Your task to perform on an android device: turn off translation in the chrome app Image 0: 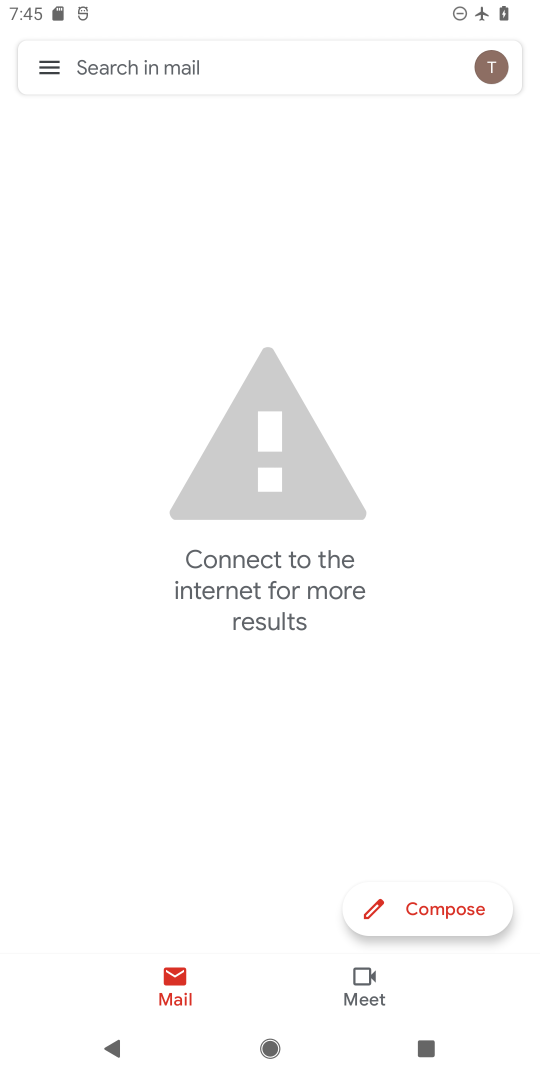
Step 0: press home button
Your task to perform on an android device: turn off translation in the chrome app Image 1: 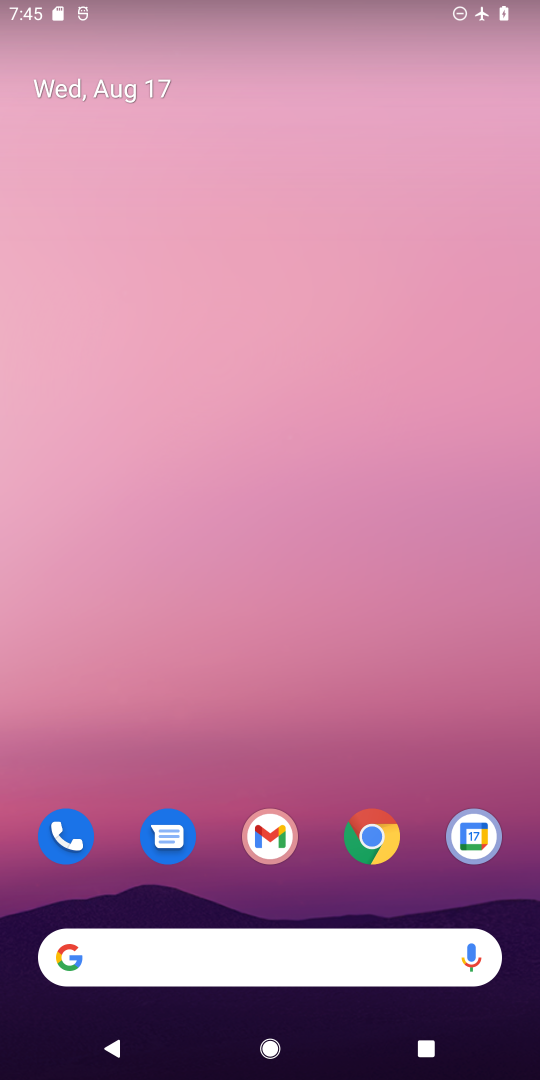
Step 1: drag from (220, 794) to (287, 35)
Your task to perform on an android device: turn off translation in the chrome app Image 2: 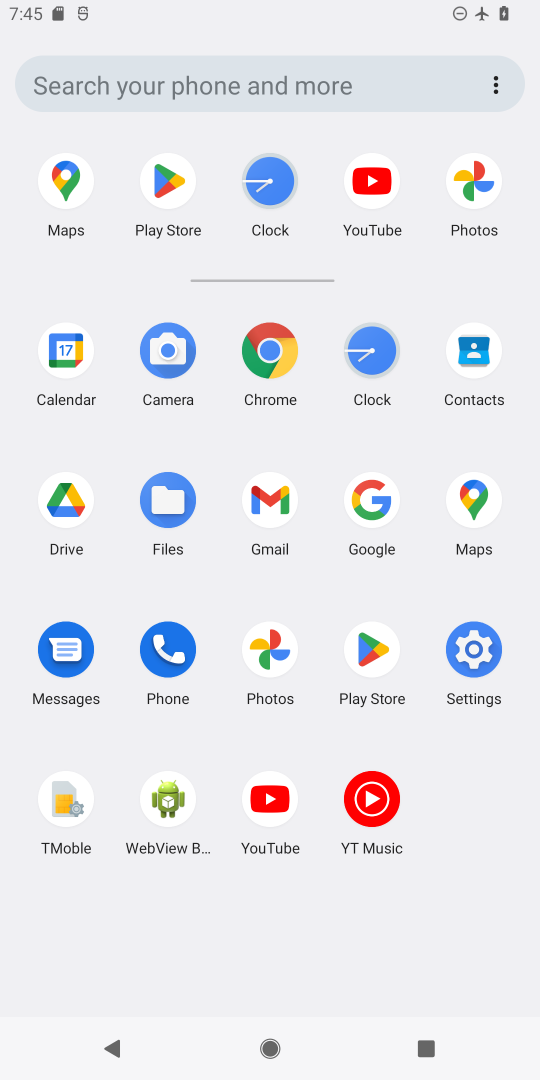
Step 2: click (279, 347)
Your task to perform on an android device: turn off translation in the chrome app Image 3: 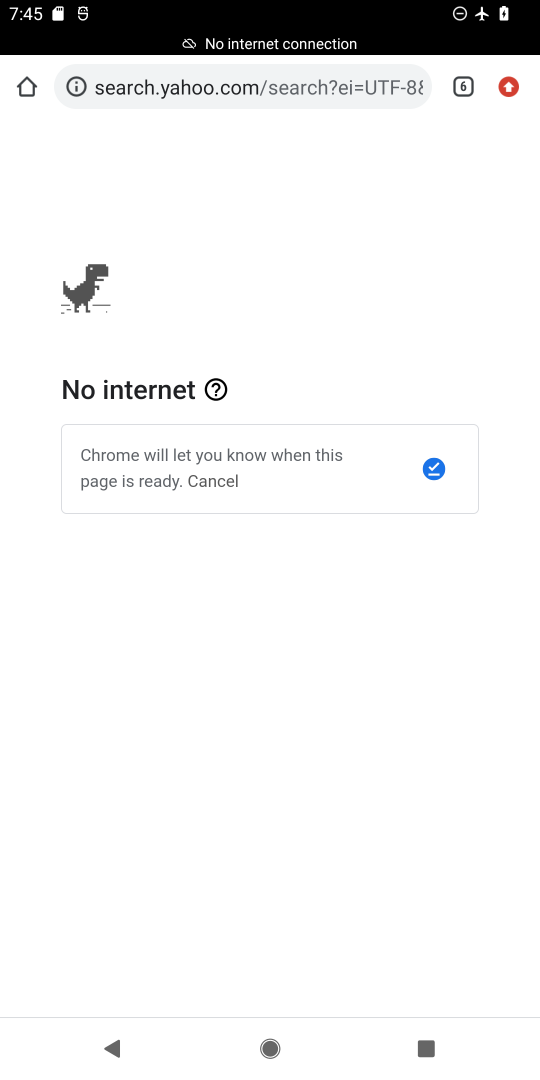
Step 3: click (528, 79)
Your task to perform on an android device: turn off translation in the chrome app Image 4: 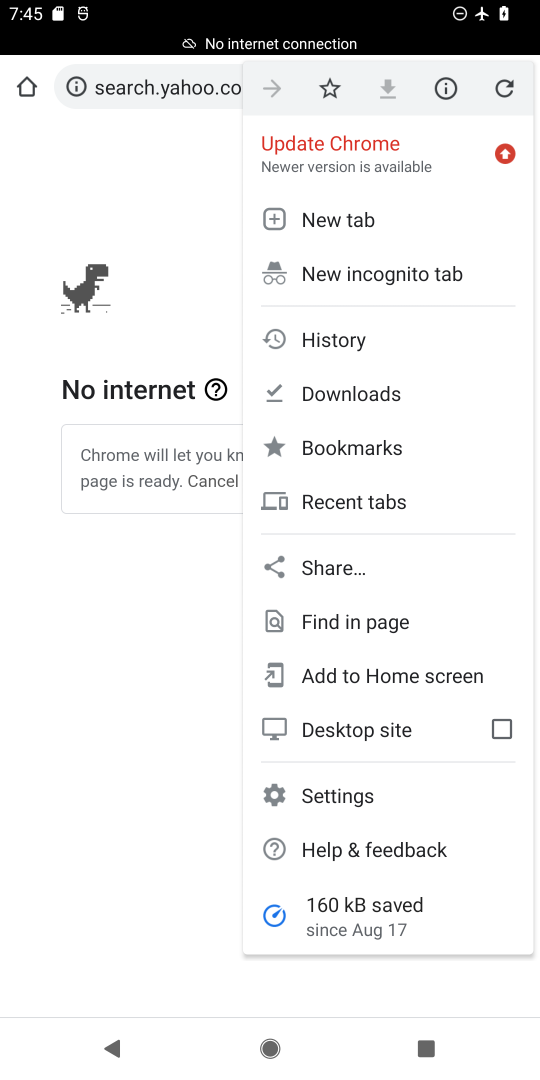
Step 4: click (328, 783)
Your task to perform on an android device: turn off translation in the chrome app Image 5: 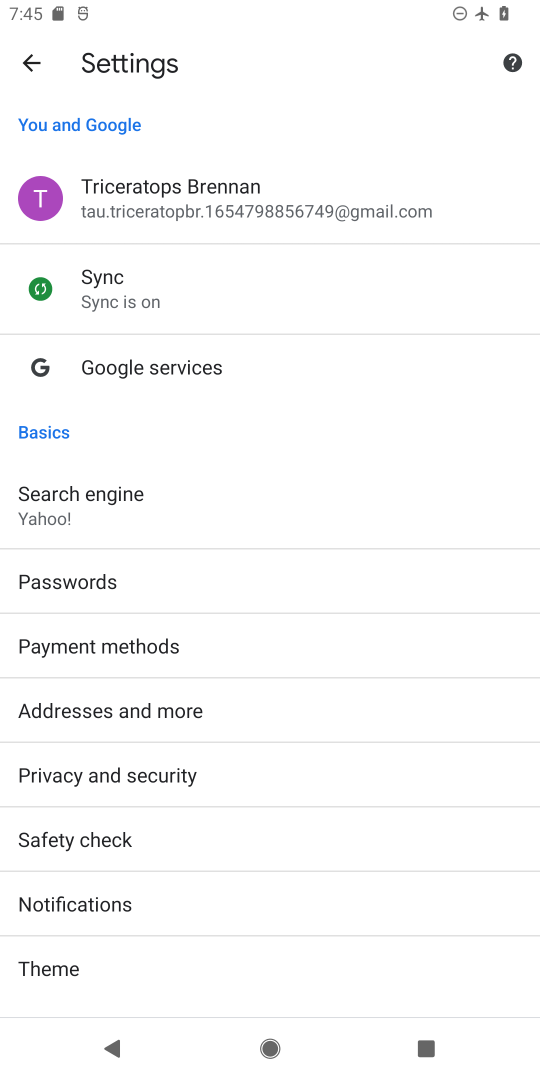
Step 5: drag from (132, 852) to (280, 373)
Your task to perform on an android device: turn off translation in the chrome app Image 6: 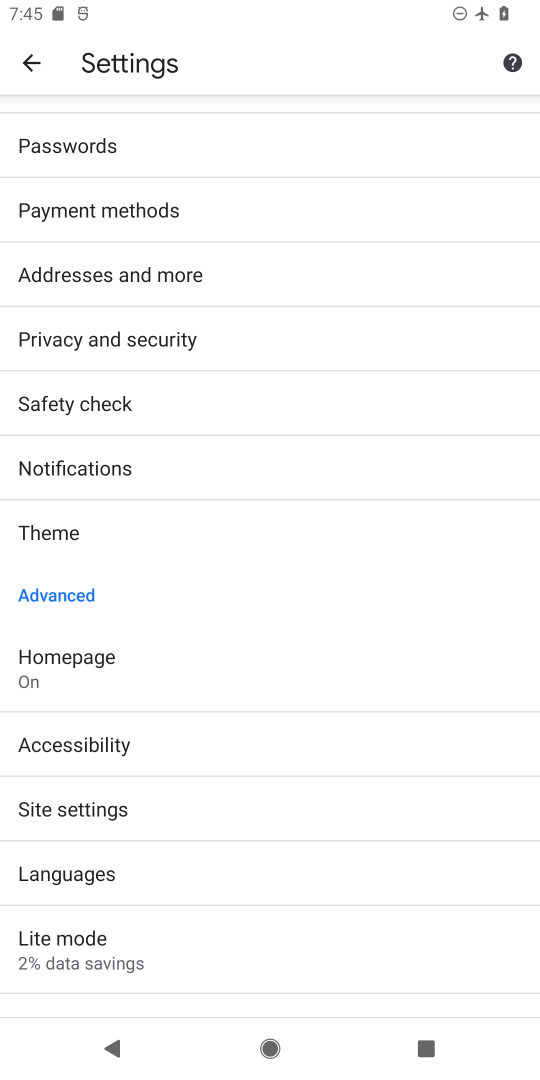
Step 6: click (129, 866)
Your task to perform on an android device: turn off translation in the chrome app Image 7: 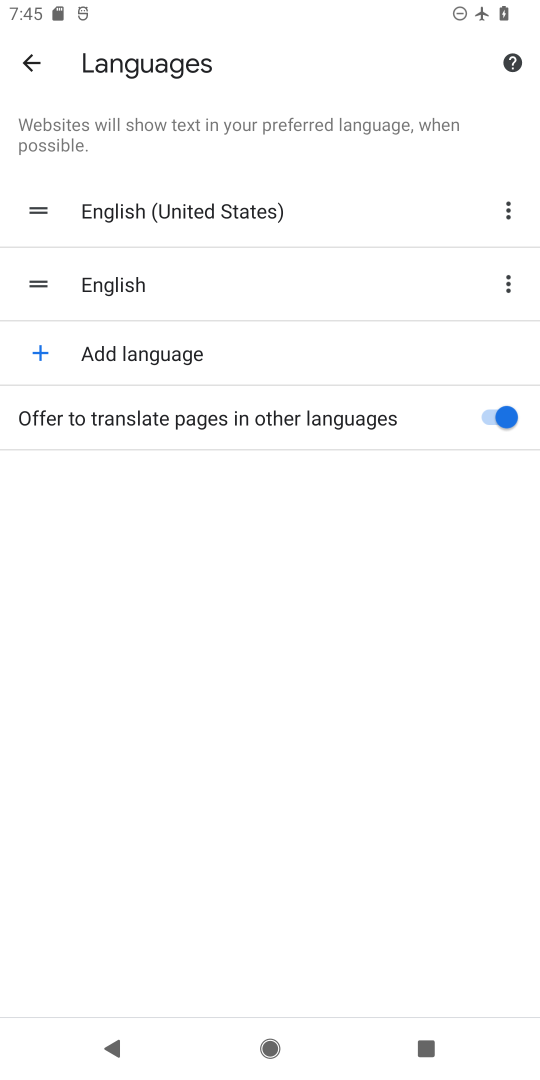
Step 7: click (499, 401)
Your task to perform on an android device: turn off translation in the chrome app Image 8: 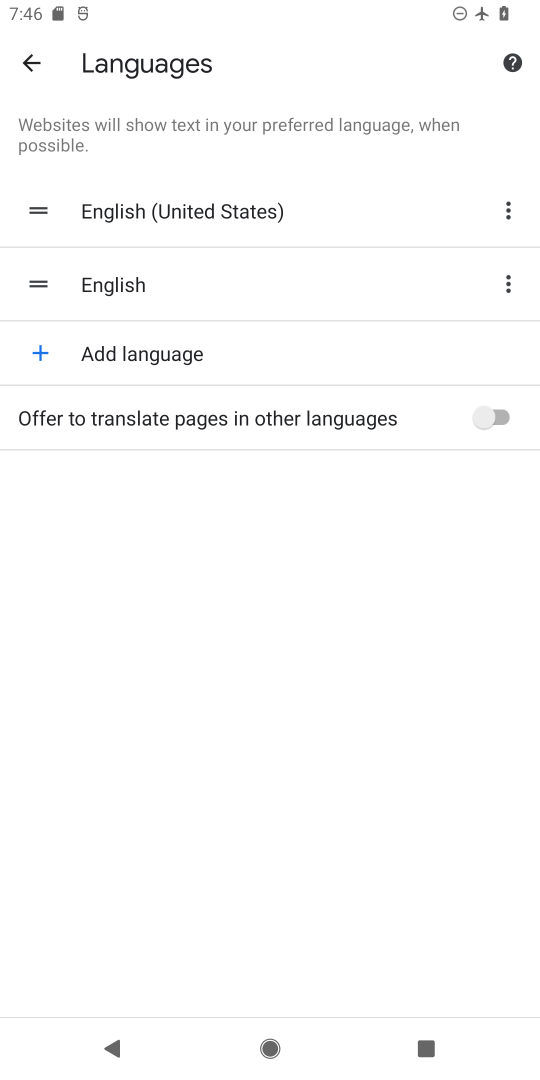
Step 8: task complete